Your task to perform on an android device: Do I have any events today? Image 0: 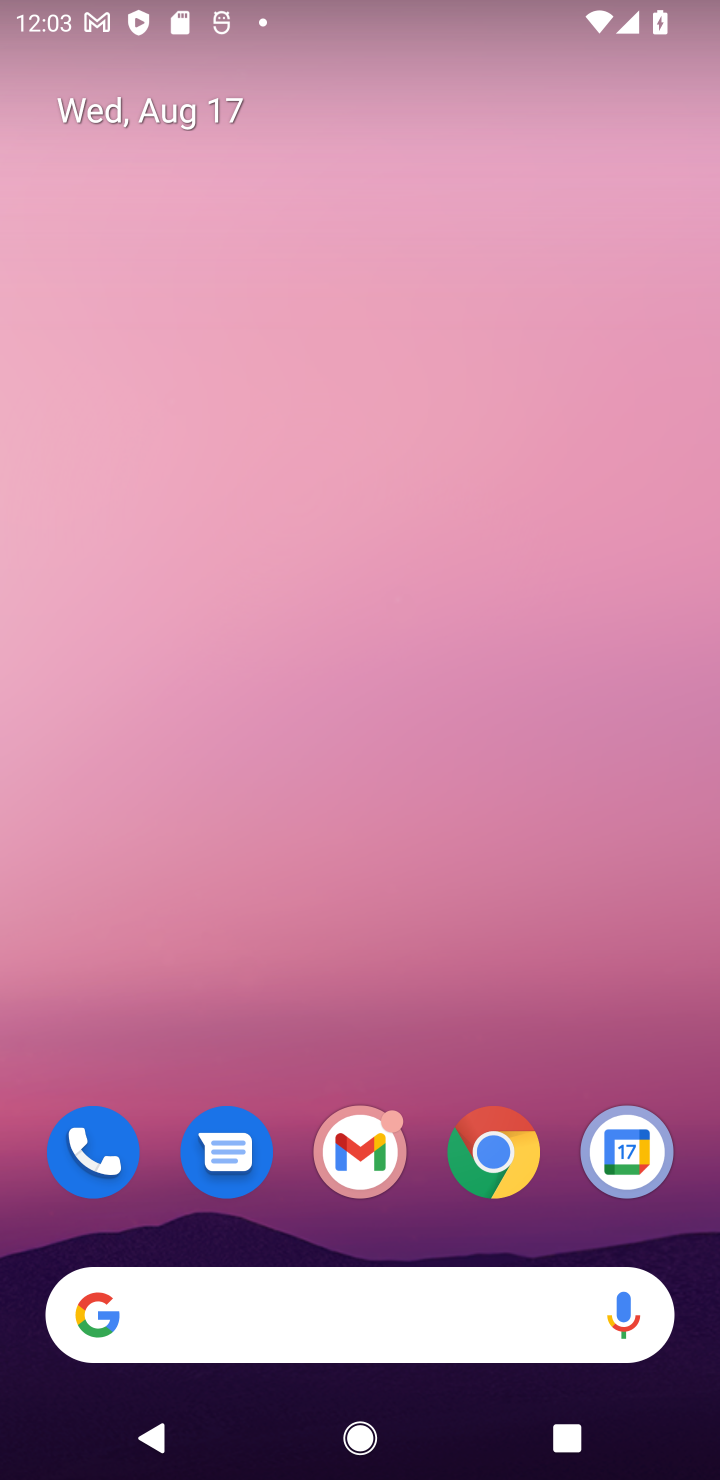
Step 0: drag from (695, 1108) to (347, 45)
Your task to perform on an android device: Do I have any events today? Image 1: 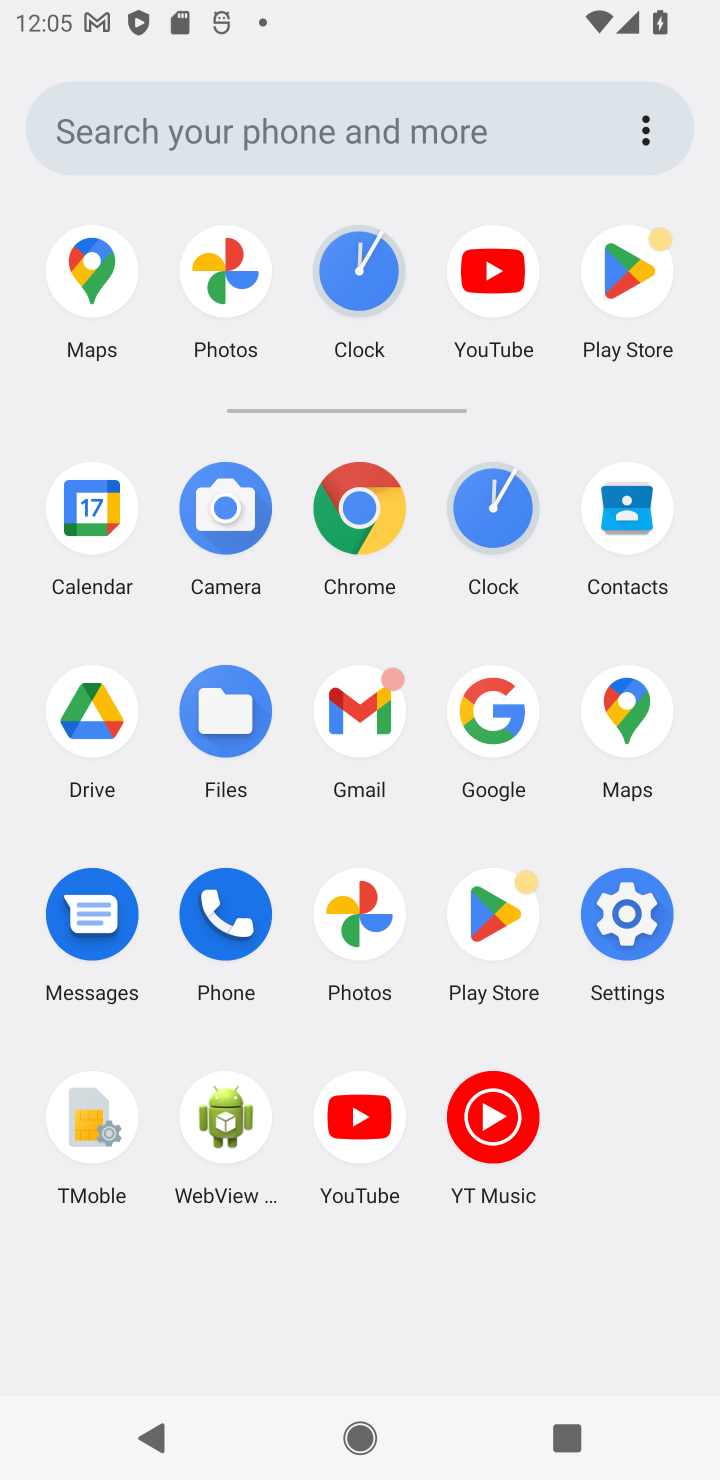
Step 1: click (73, 512)
Your task to perform on an android device: Do I have any events today? Image 2: 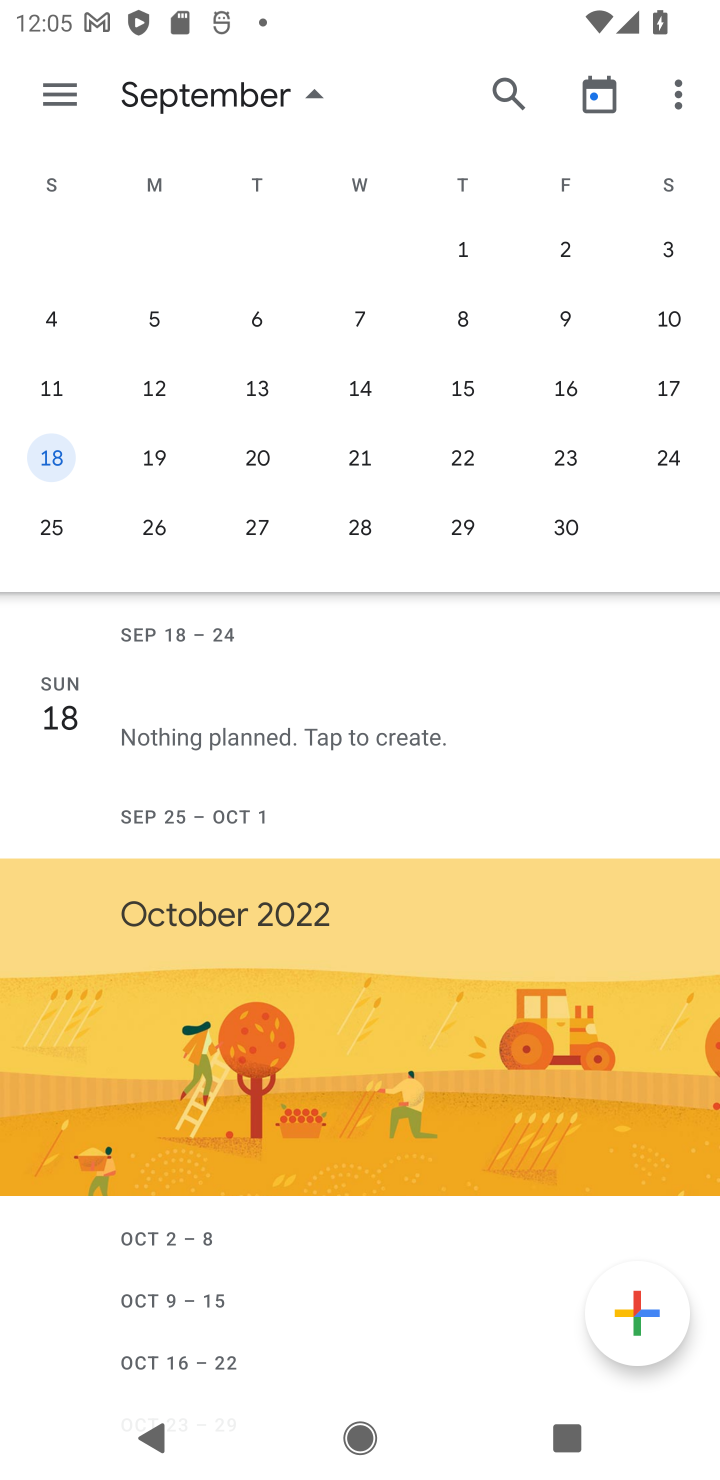
Step 2: task complete